Your task to perform on an android device: Go to location settings Image 0: 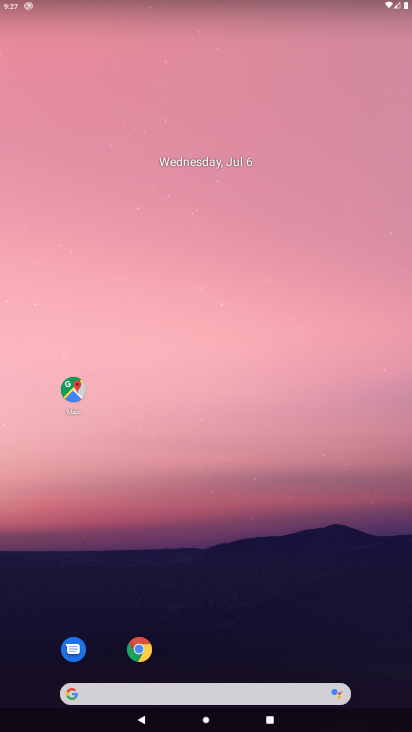
Step 0: drag from (216, 630) to (253, 30)
Your task to perform on an android device: Go to location settings Image 1: 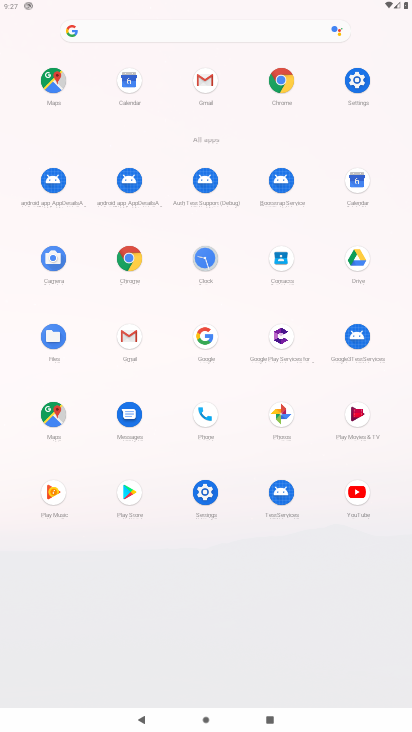
Step 1: click (354, 75)
Your task to perform on an android device: Go to location settings Image 2: 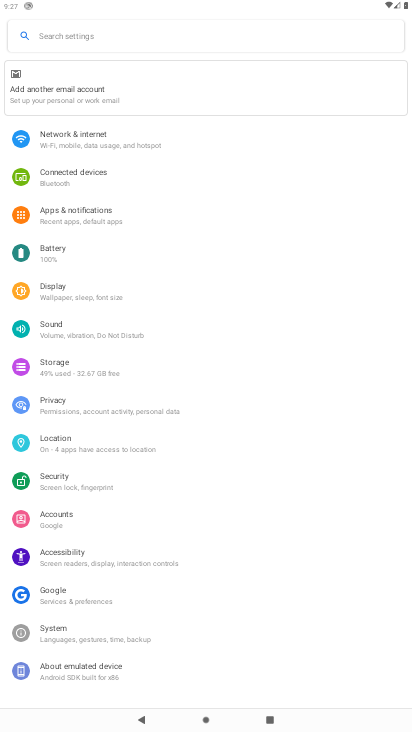
Step 2: click (85, 435)
Your task to perform on an android device: Go to location settings Image 3: 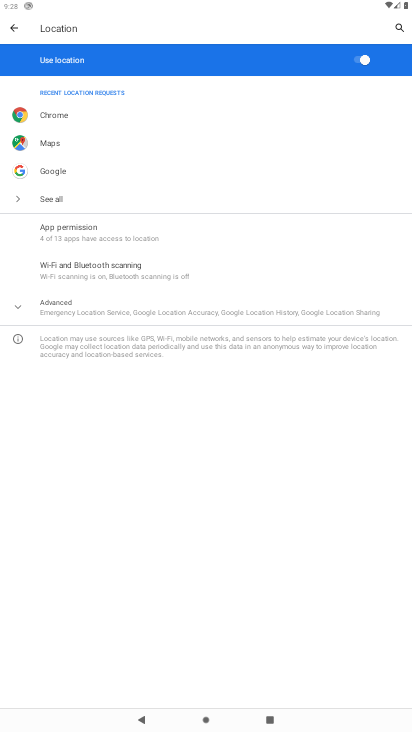
Step 3: click (67, 306)
Your task to perform on an android device: Go to location settings Image 4: 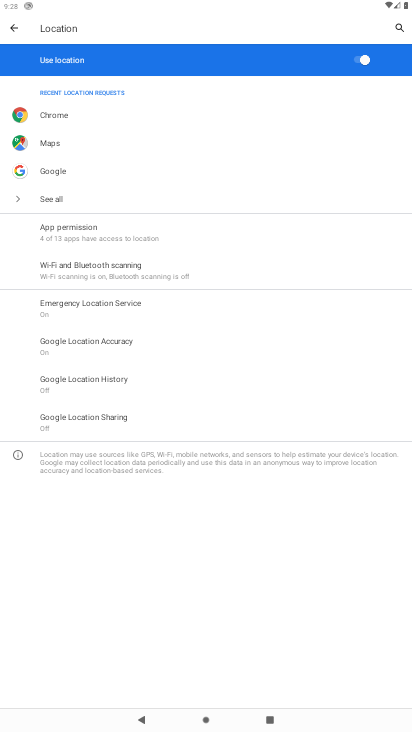
Step 4: task complete